Your task to perform on an android device: turn off notifications settings in the gmail app Image 0: 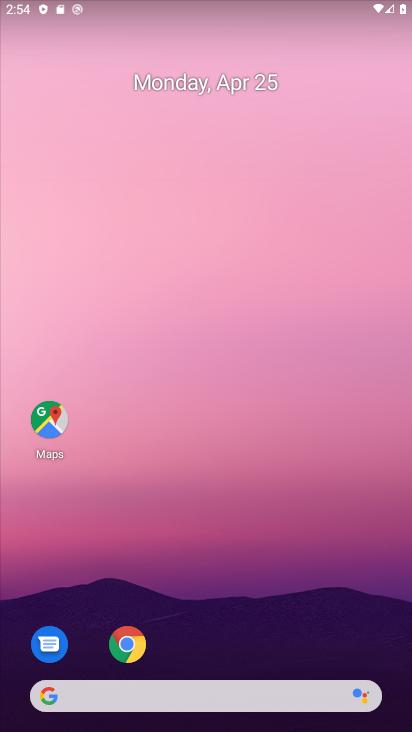
Step 0: drag from (210, 582) to (253, 48)
Your task to perform on an android device: turn off notifications settings in the gmail app Image 1: 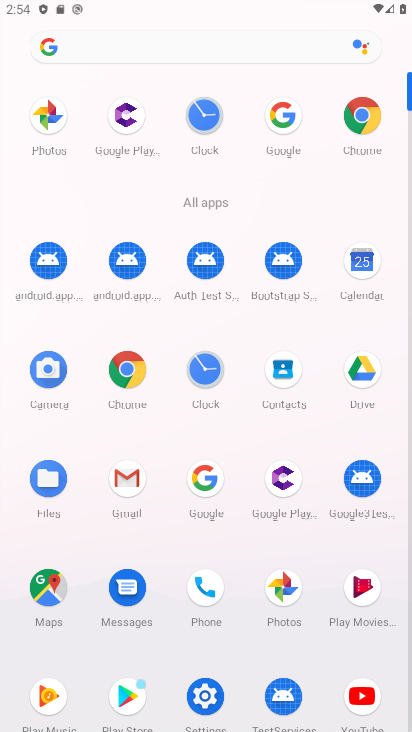
Step 1: click (123, 480)
Your task to perform on an android device: turn off notifications settings in the gmail app Image 2: 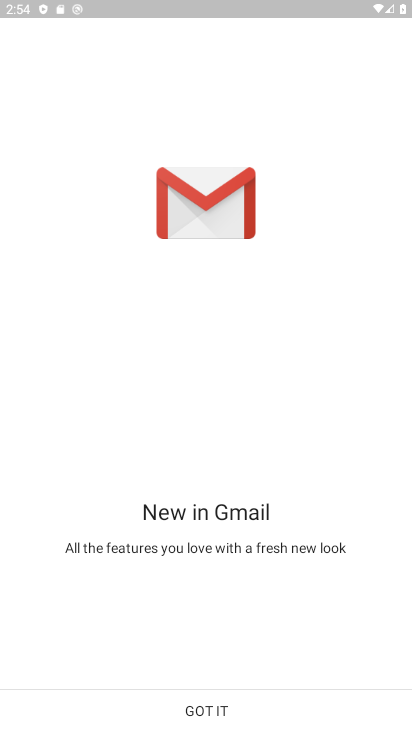
Step 2: click (205, 706)
Your task to perform on an android device: turn off notifications settings in the gmail app Image 3: 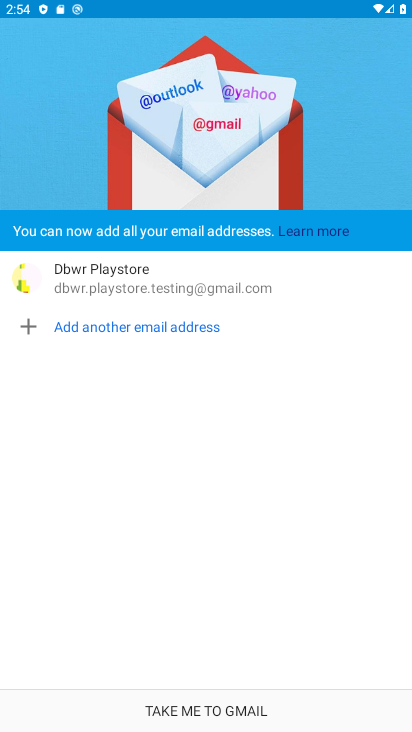
Step 3: click (205, 706)
Your task to perform on an android device: turn off notifications settings in the gmail app Image 4: 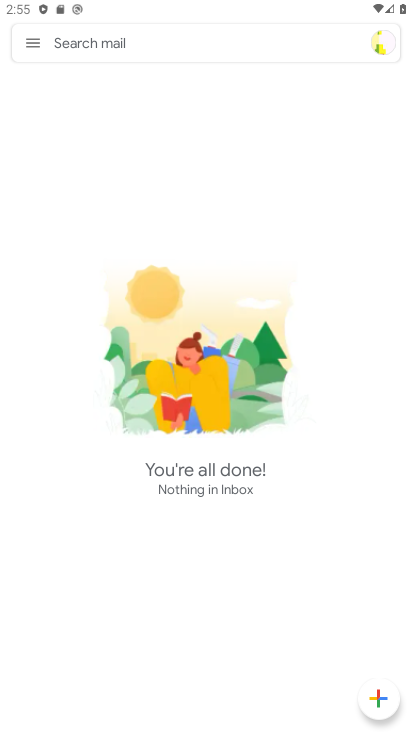
Step 4: click (32, 43)
Your task to perform on an android device: turn off notifications settings in the gmail app Image 5: 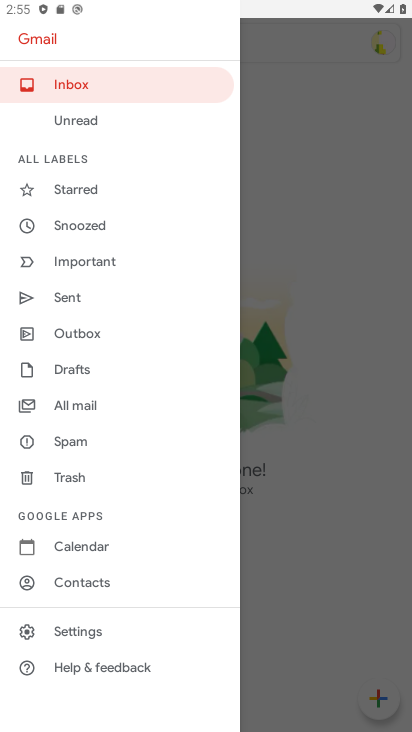
Step 5: click (72, 630)
Your task to perform on an android device: turn off notifications settings in the gmail app Image 6: 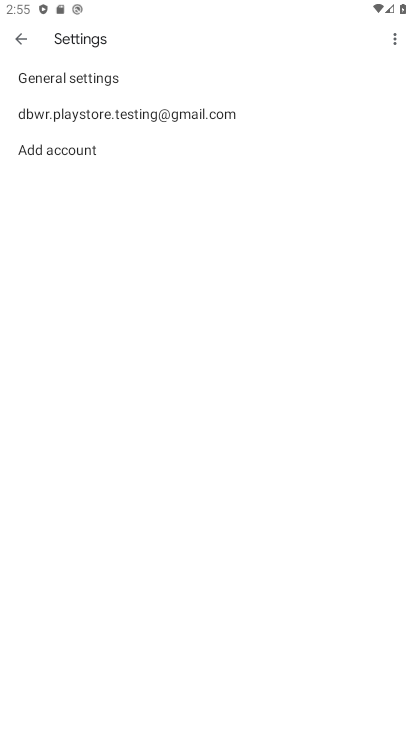
Step 6: click (58, 114)
Your task to perform on an android device: turn off notifications settings in the gmail app Image 7: 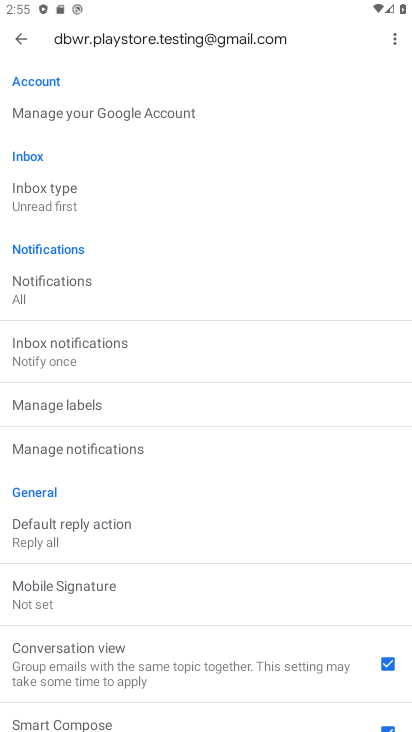
Step 7: click (67, 446)
Your task to perform on an android device: turn off notifications settings in the gmail app Image 8: 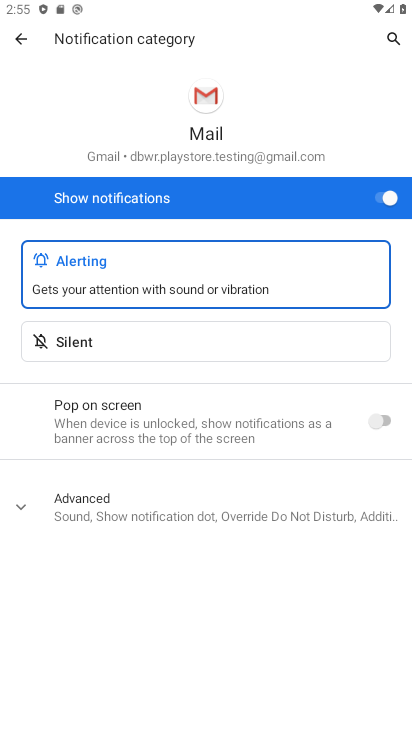
Step 8: click (390, 198)
Your task to perform on an android device: turn off notifications settings in the gmail app Image 9: 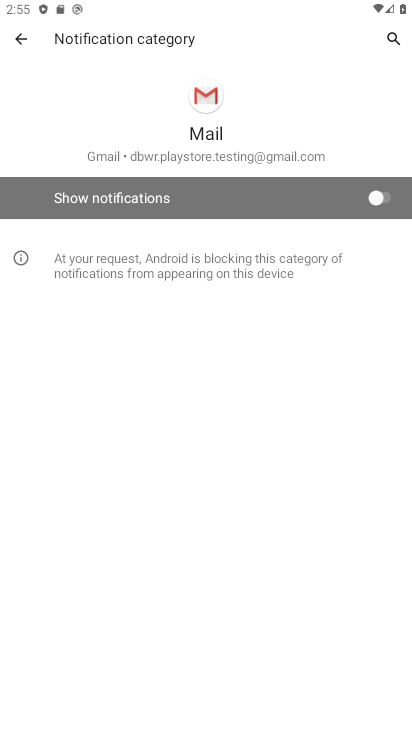
Step 9: task complete